Your task to perform on an android device: turn on the 12-hour format for clock Image 0: 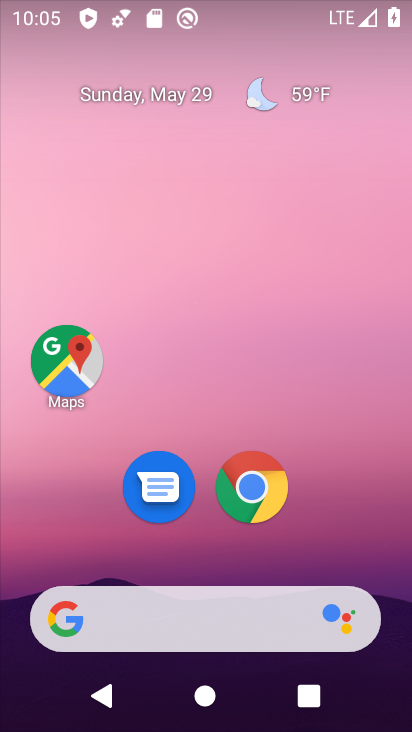
Step 0: drag from (396, 572) to (371, 112)
Your task to perform on an android device: turn on the 12-hour format for clock Image 1: 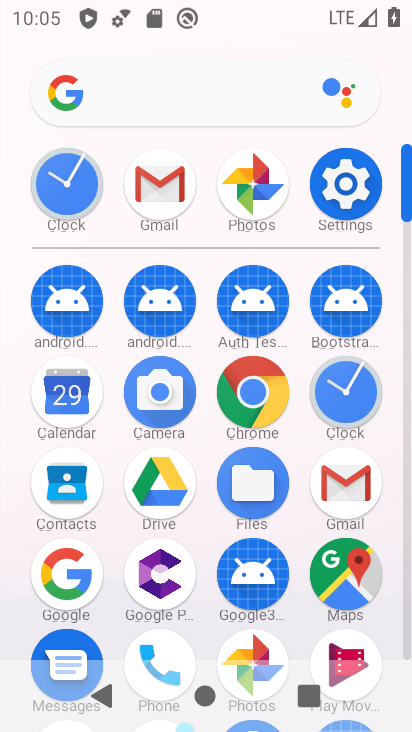
Step 1: click (326, 385)
Your task to perform on an android device: turn on the 12-hour format for clock Image 2: 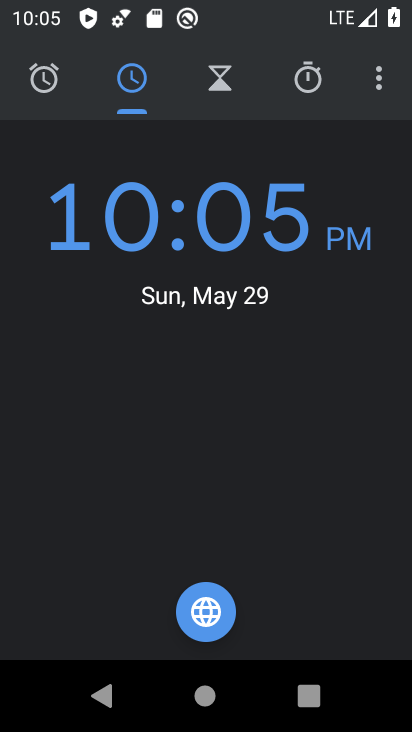
Step 2: click (380, 80)
Your task to perform on an android device: turn on the 12-hour format for clock Image 3: 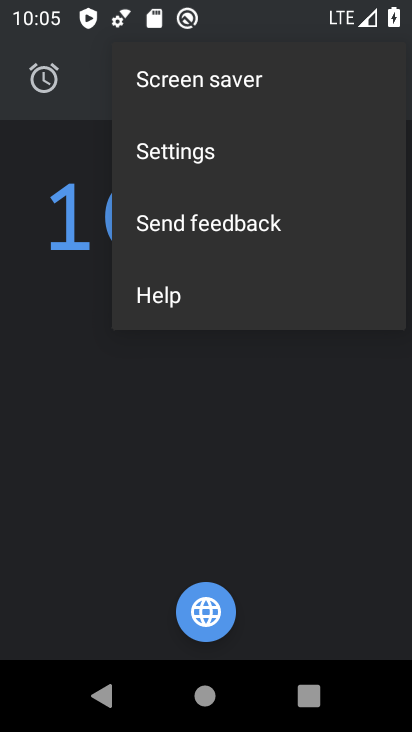
Step 3: click (168, 158)
Your task to perform on an android device: turn on the 12-hour format for clock Image 4: 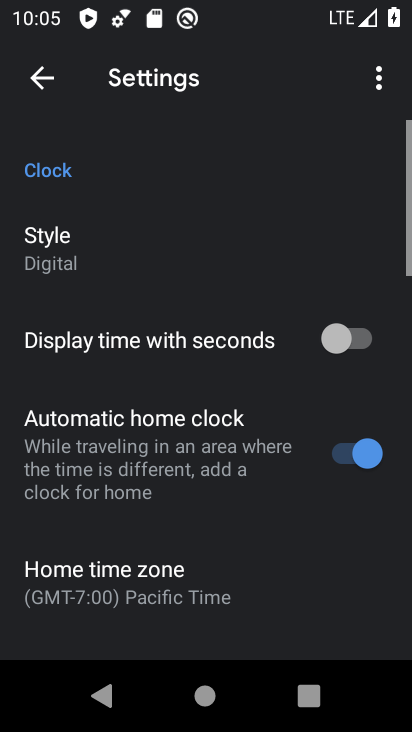
Step 4: drag from (263, 494) to (271, 186)
Your task to perform on an android device: turn on the 12-hour format for clock Image 5: 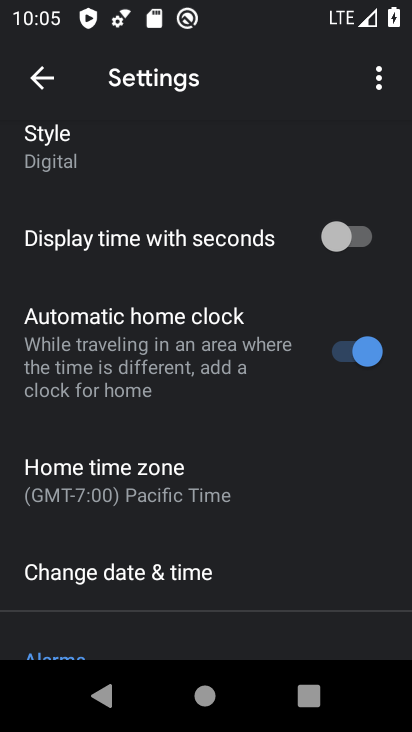
Step 5: drag from (279, 636) to (275, 218)
Your task to perform on an android device: turn on the 12-hour format for clock Image 6: 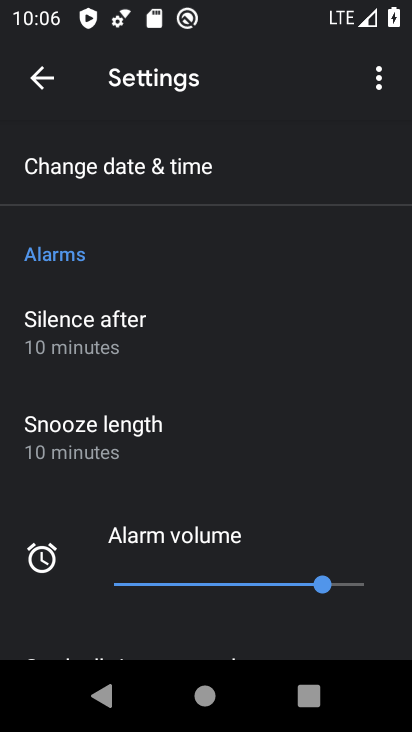
Step 6: click (88, 166)
Your task to perform on an android device: turn on the 12-hour format for clock Image 7: 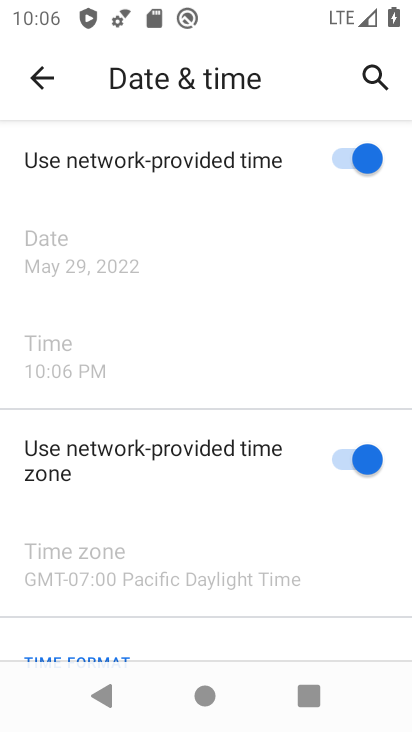
Step 7: task complete